Your task to perform on an android device: set the stopwatch Image 0: 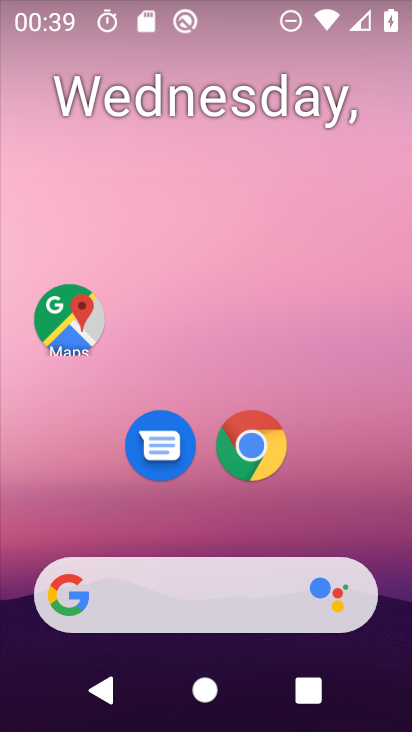
Step 0: drag from (301, 517) to (406, 48)
Your task to perform on an android device: set the stopwatch Image 1: 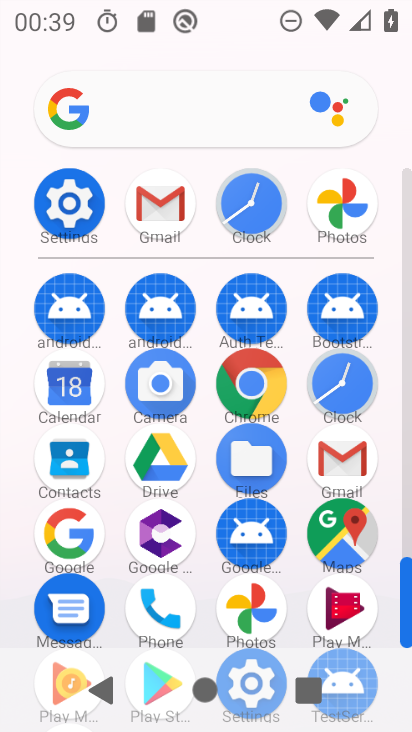
Step 1: click (331, 378)
Your task to perform on an android device: set the stopwatch Image 2: 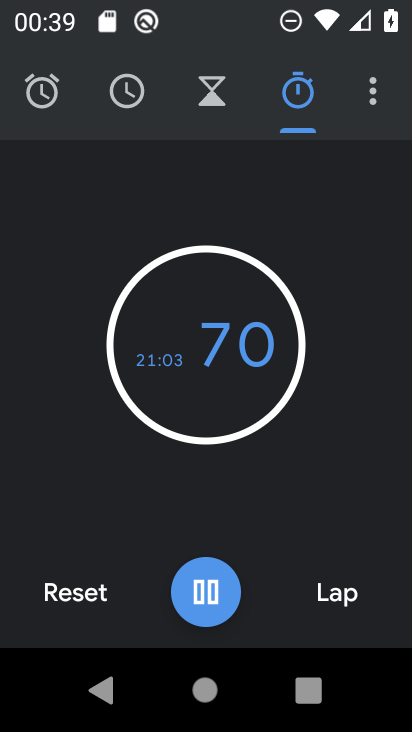
Step 2: click (66, 589)
Your task to perform on an android device: set the stopwatch Image 3: 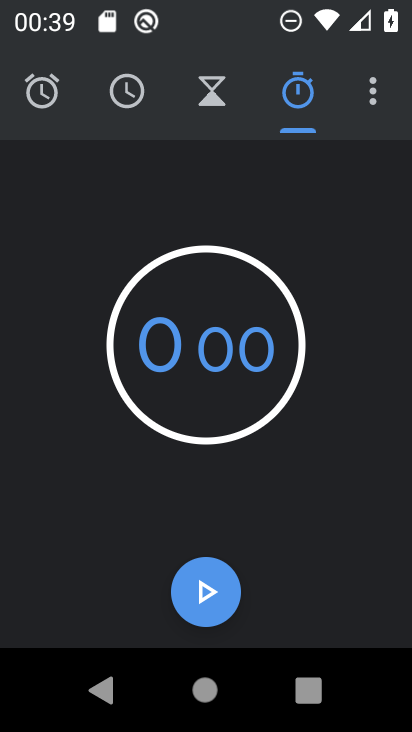
Step 3: click (189, 592)
Your task to perform on an android device: set the stopwatch Image 4: 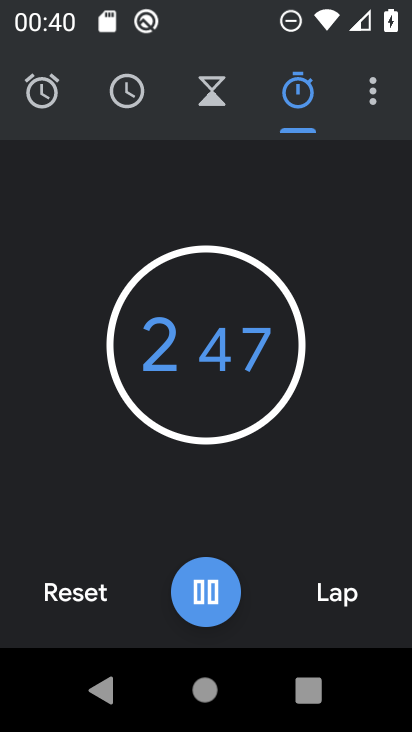
Step 4: task complete